Your task to perform on an android device: open chrome privacy settings Image 0: 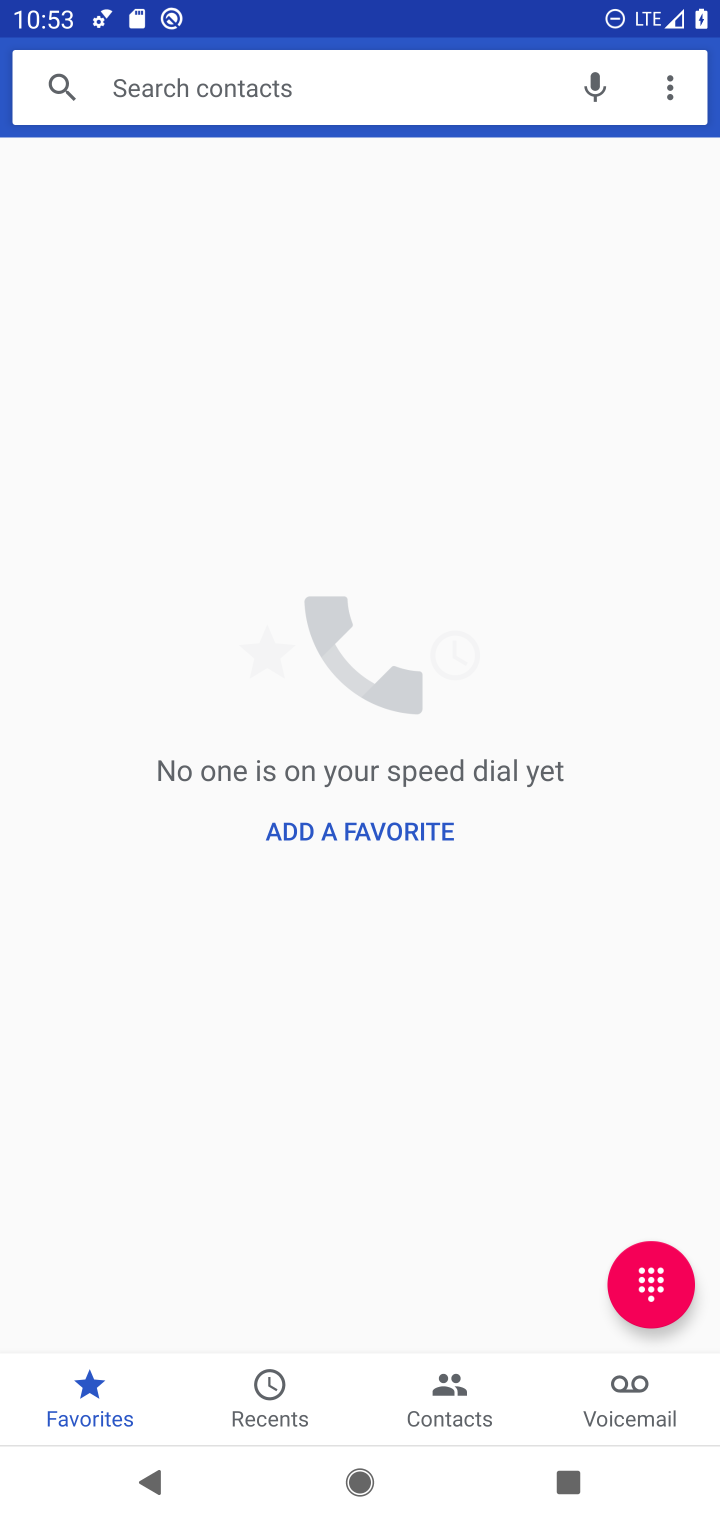
Step 0: press home button
Your task to perform on an android device: open chrome privacy settings Image 1: 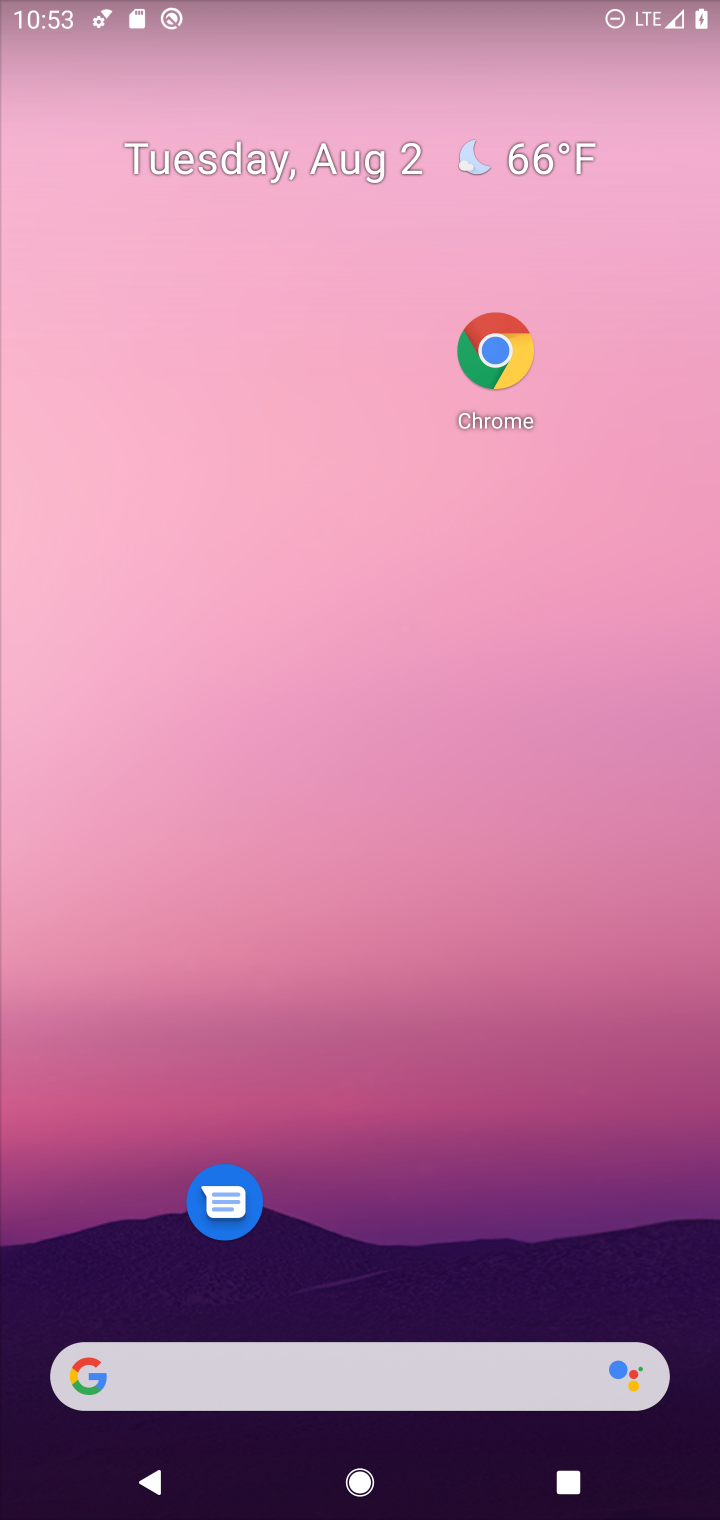
Step 1: click (493, 358)
Your task to perform on an android device: open chrome privacy settings Image 2: 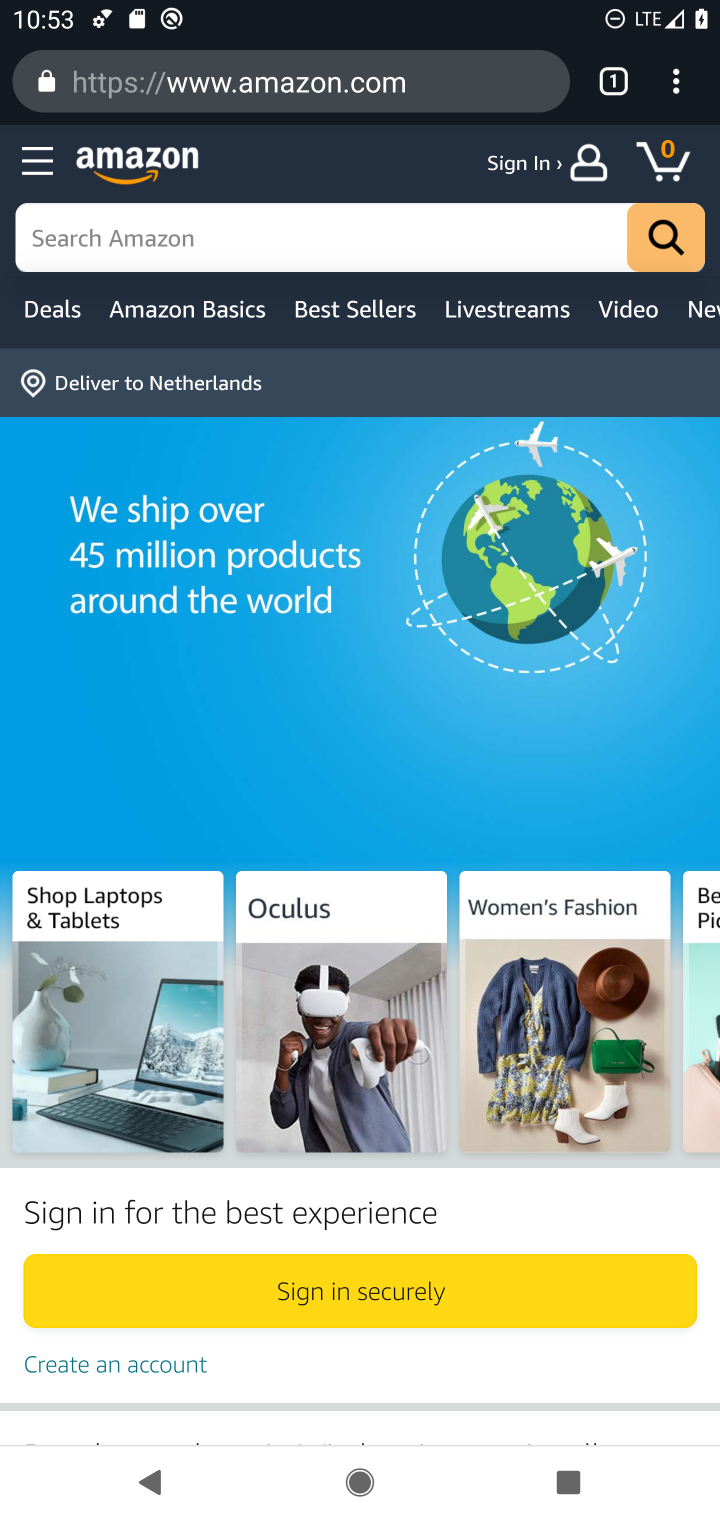
Step 2: drag from (678, 77) to (385, 963)
Your task to perform on an android device: open chrome privacy settings Image 3: 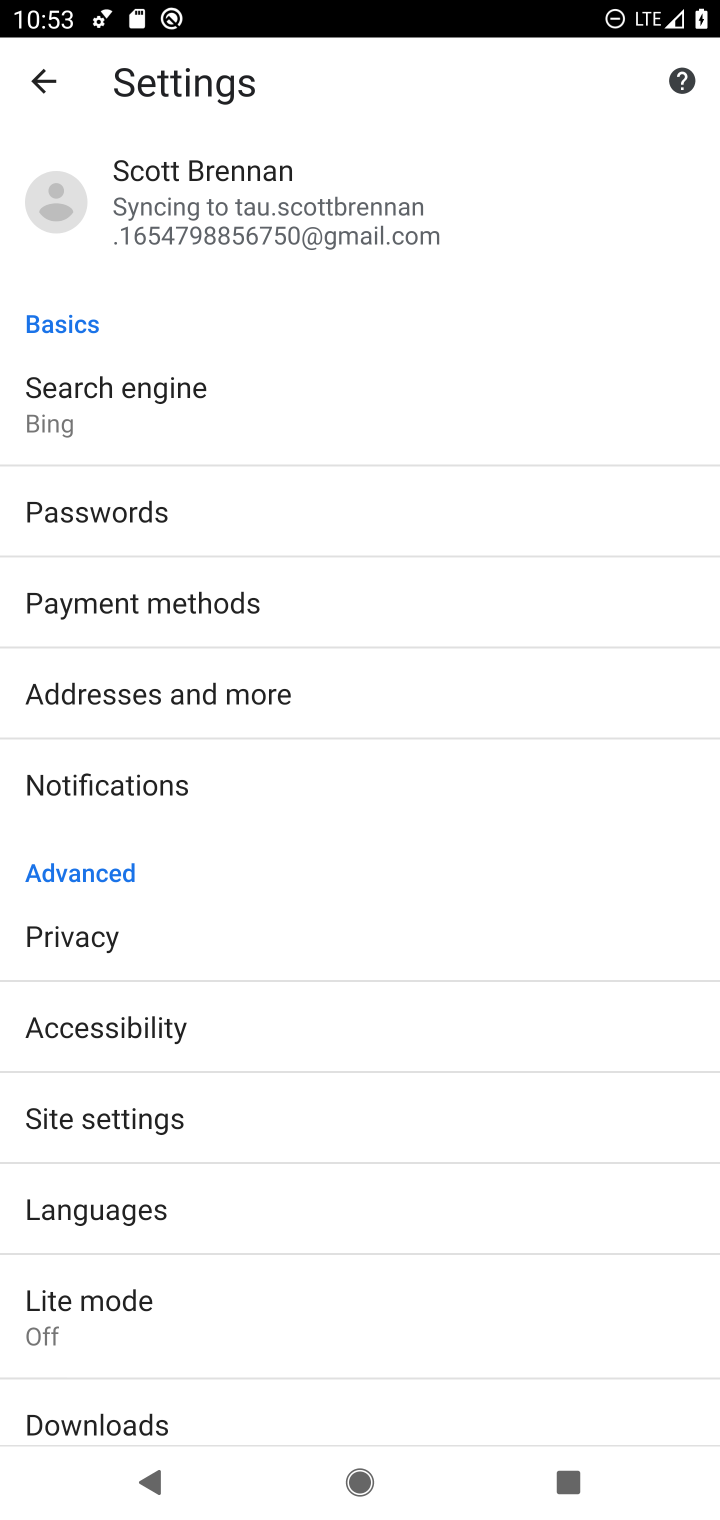
Step 3: click (19, 957)
Your task to perform on an android device: open chrome privacy settings Image 4: 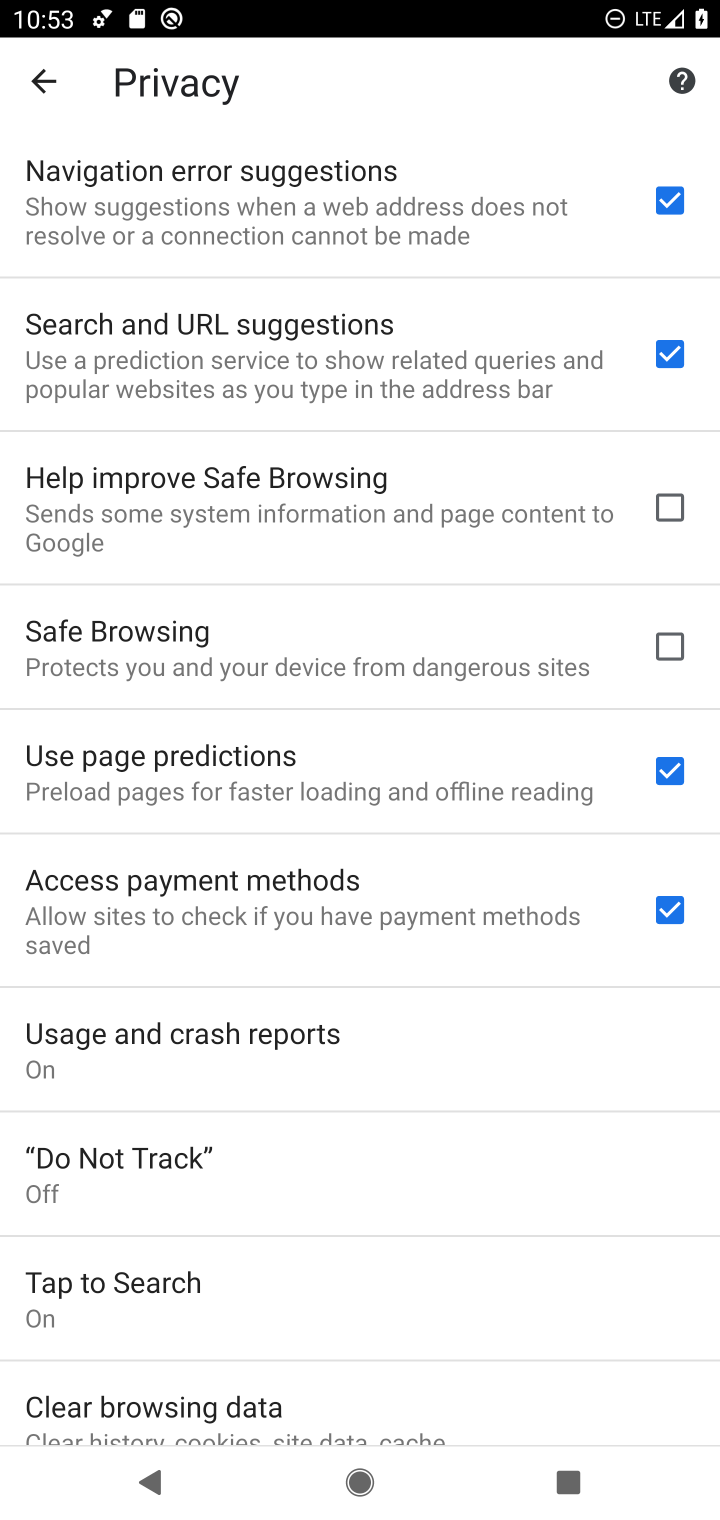
Step 4: task complete